Your task to perform on an android device: Do I have any events this weekend? Image 0: 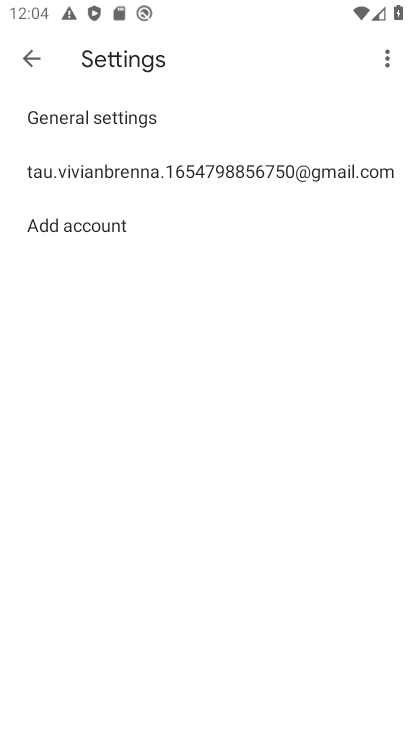
Step 0: press home button
Your task to perform on an android device: Do I have any events this weekend? Image 1: 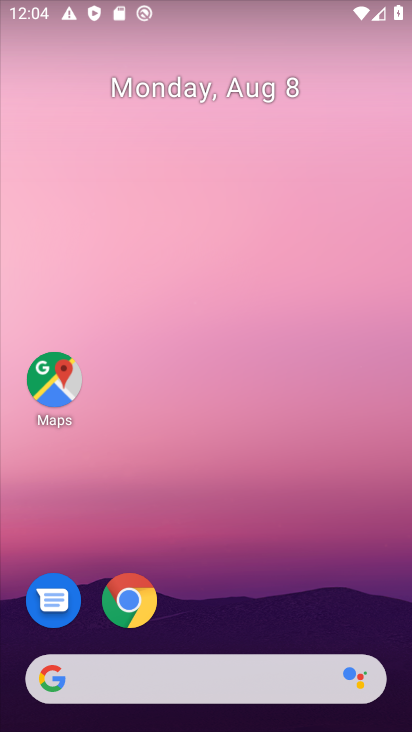
Step 1: drag from (210, 577) to (210, 149)
Your task to perform on an android device: Do I have any events this weekend? Image 2: 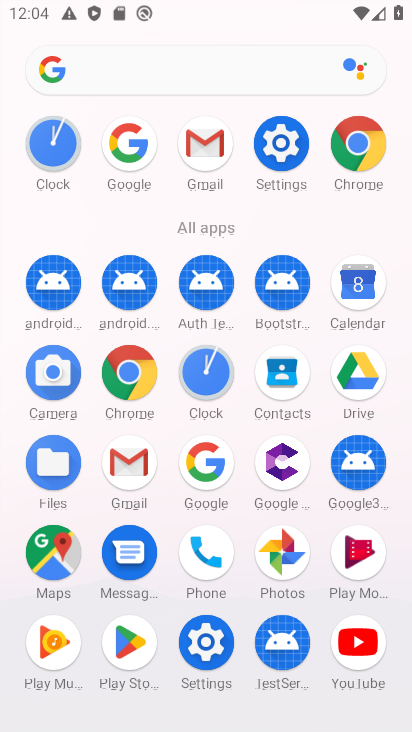
Step 2: click (373, 264)
Your task to perform on an android device: Do I have any events this weekend? Image 3: 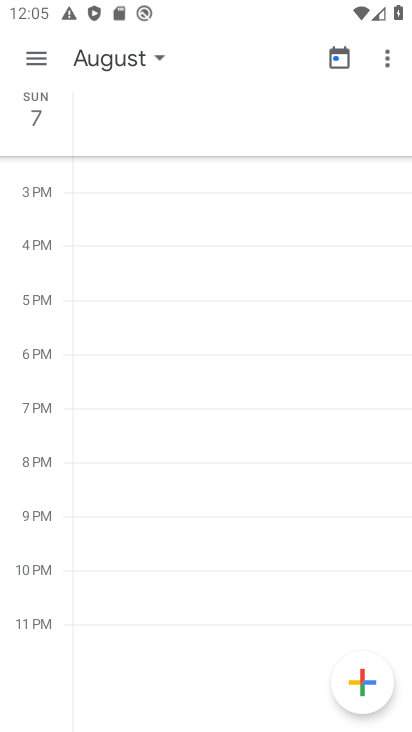
Step 3: click (144, 57)
Your task to perform on an android device: Do I have any events this weekend? Image 4: 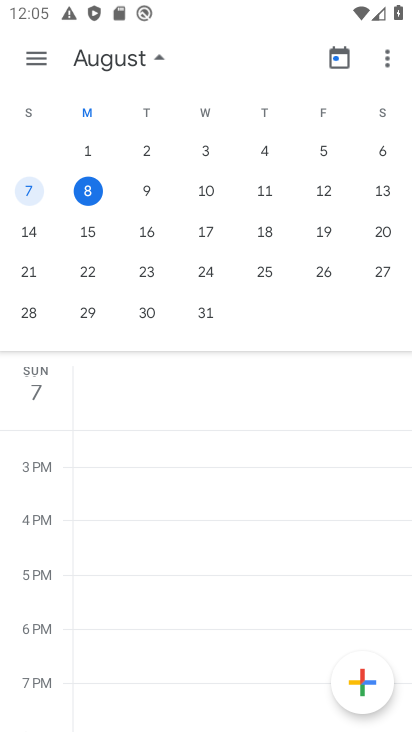
Step 4: click (368, 195)
Your task to perform on an android device: Do I have any events this weekend? Image 5: 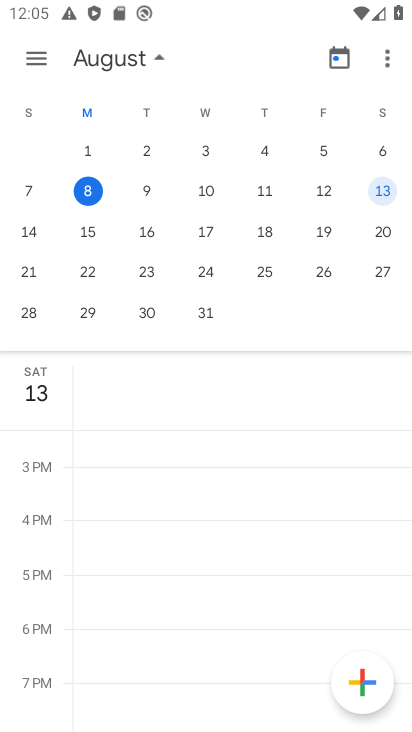
Step 5: task complete